Your task to perform on an android device: change the clock display to show seconds Image 0: 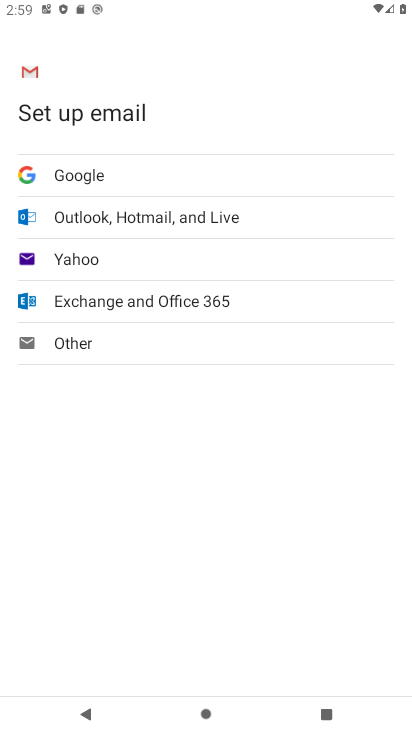
Step 0: press home button
Your task to perform on an android device: change the clock display to show seconds Image 1: 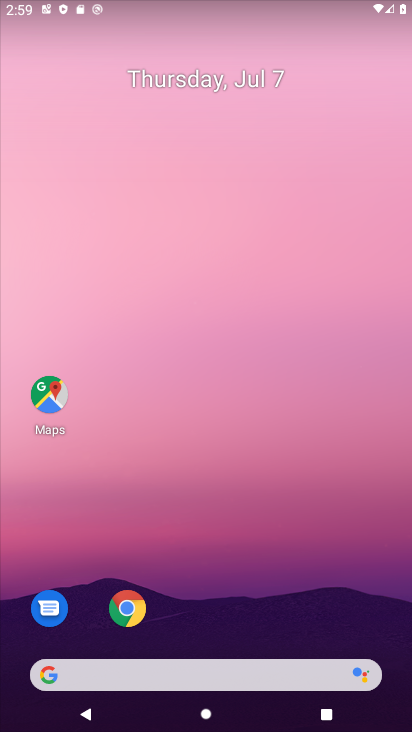
Step 1: drag from (340, 619) to (285, 162)
Your task to perform on an android device: change the clock display to show seconds Image 2: 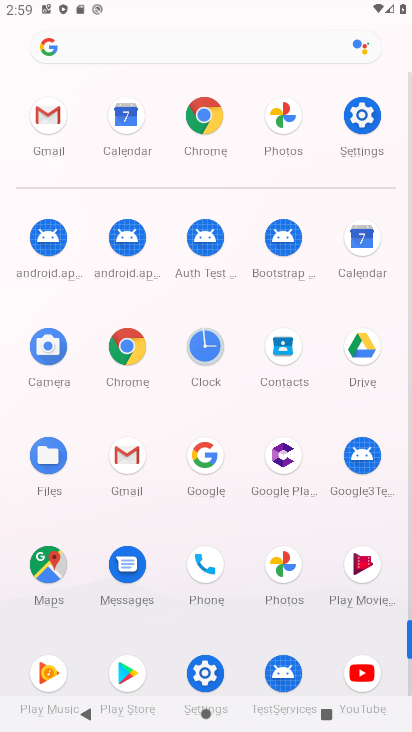
Step 2: click (200, 346)
Your task to perform on an android device: change the clock display to show seconds Image 3: 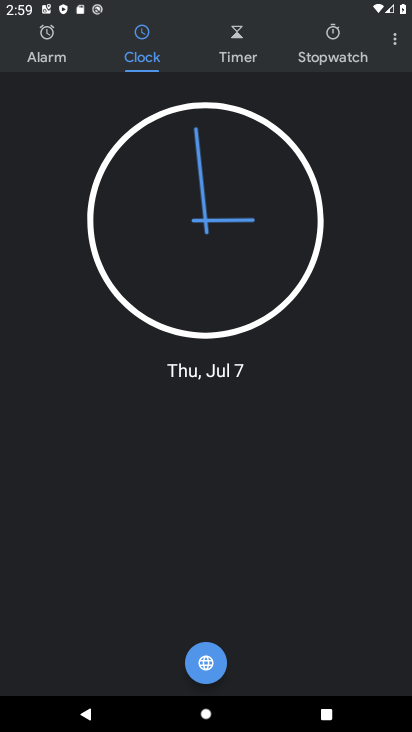
Step 3: click (388, 42)
Your task to perform on an android device: change the clock display to show seconds Image 4: 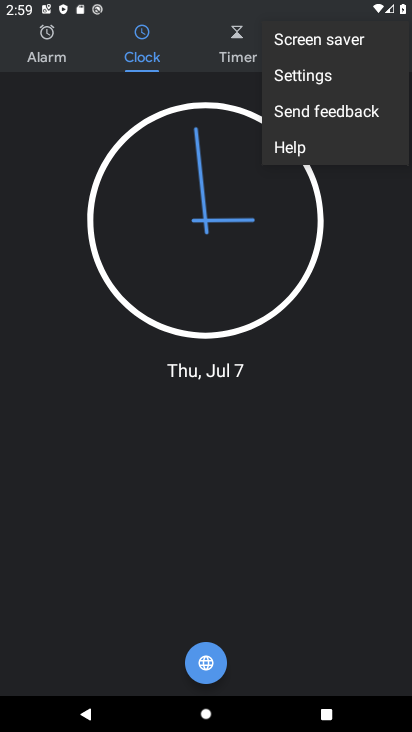
Step 4: click (318, 74)
Your task to perform on an android device: change the clock display to show seconds Image 5: 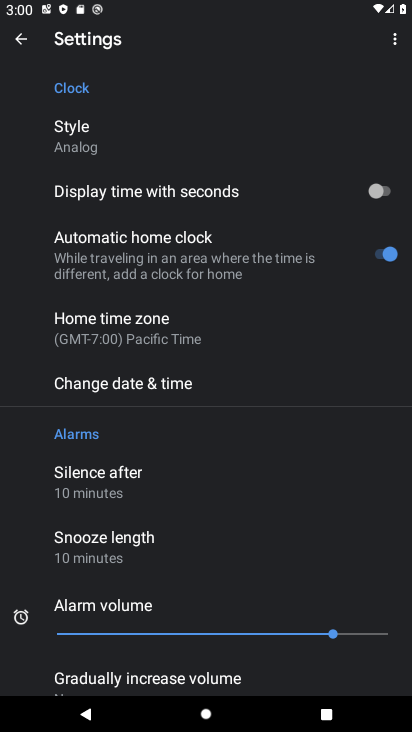
Step 5: click (385, 190)
Your task to perform on an android device: change the clock display to show seconds Image 6: 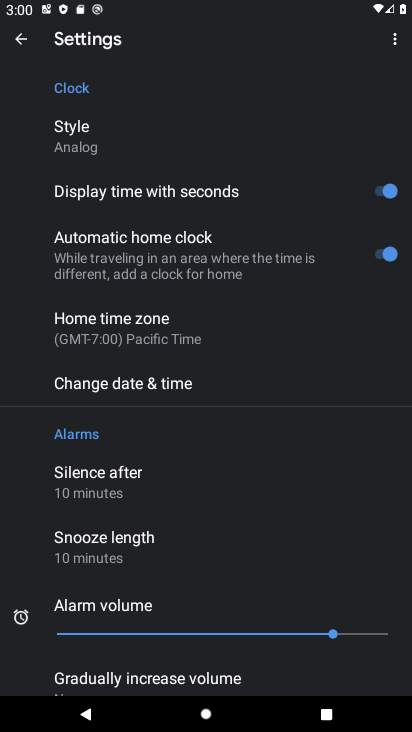
Step 6: task complete